Your task to perform on an android device: Search for Italian restaurants on Maps Image 0: 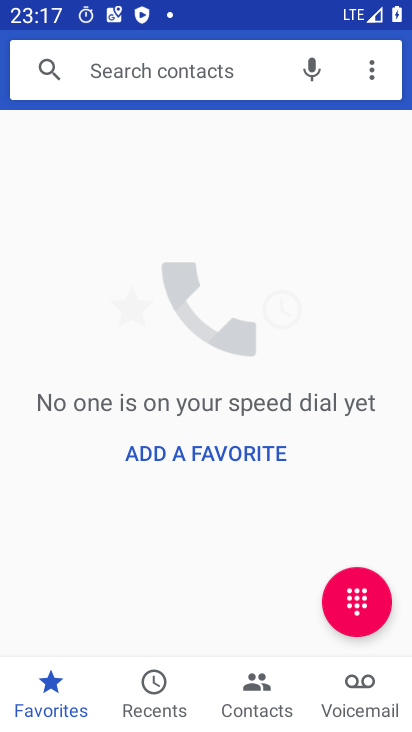
Step 0: press home button
Your task to perform on an android device: Search for Italian restaurants on Maps Image 1: 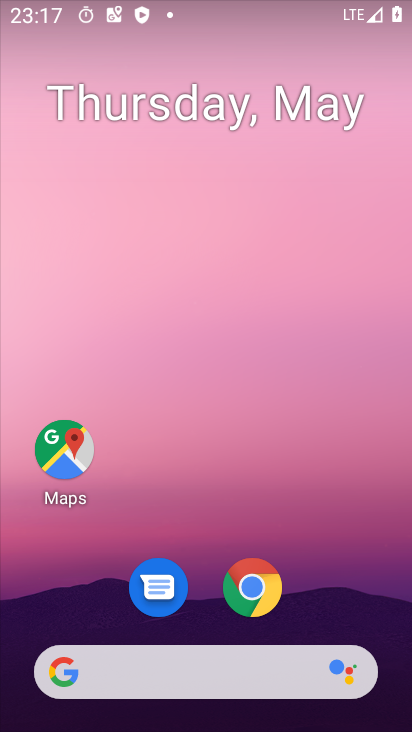
Step 1: click (67, 452)
Your task to perform on an android device: Search for Italian restaurants on Maps Image 2: 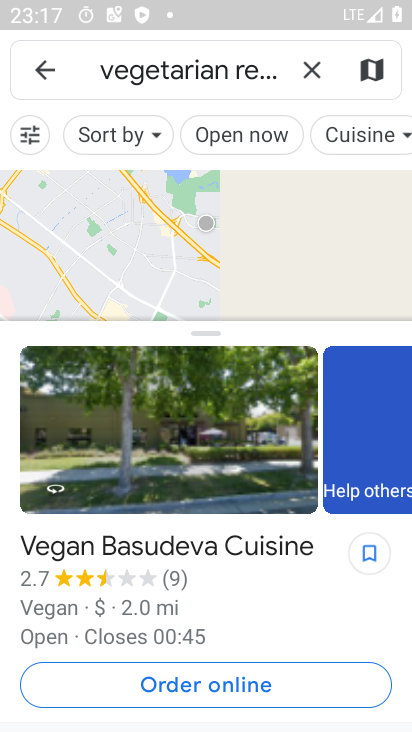
Step 2: click (314, 73)
Your task to perform on an android device: Search for Italian restaurants on Maps Image 3: 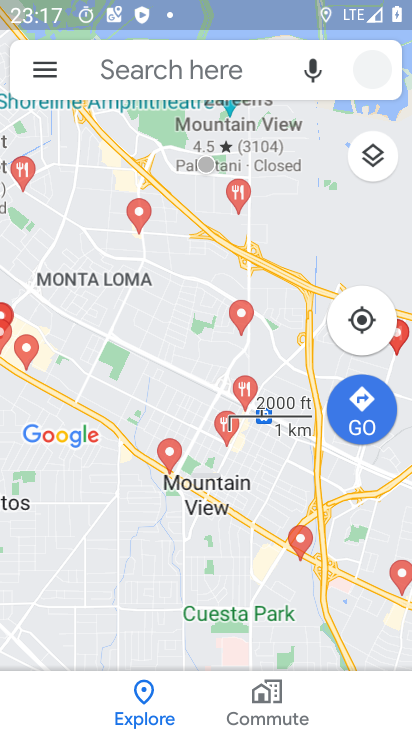
Step 3: click (108, 70)
Your task to perform on an android device: Search for Italian restaurants on Maps Image 4: 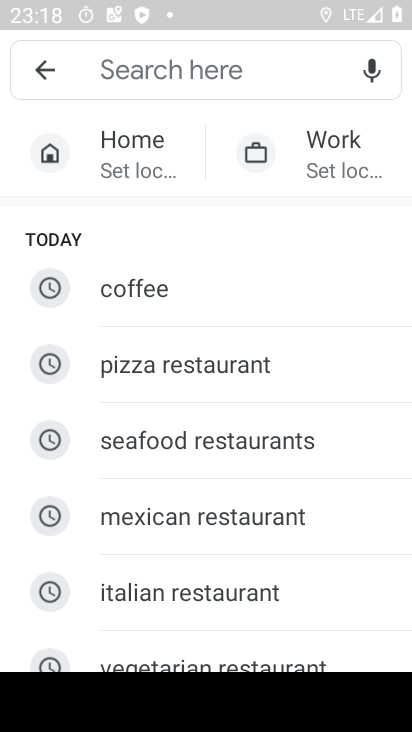
Step 4: type "italian restaurants"
Your task to perform on an android device: Search for Italian restaurants on Maps Image 5: 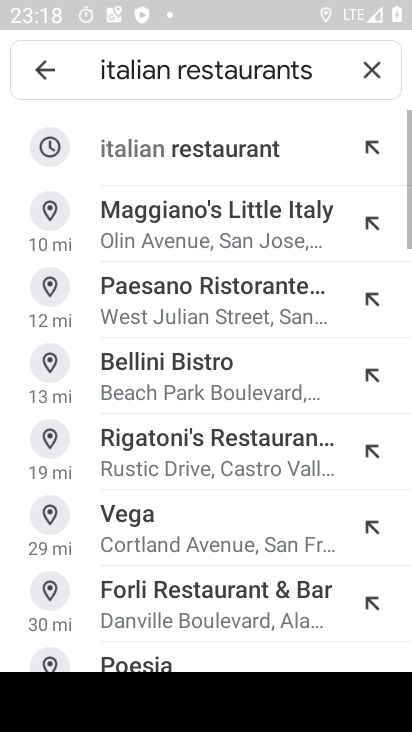
Step 5: click (166, 160)
Your task to perform on an android device: Search for Italian restaurants on Maps Image 6: 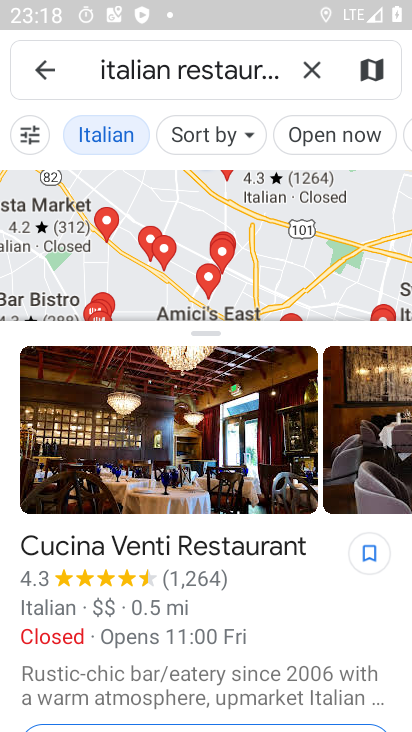
Step 6: task complete